Your task to perform on an android device: toggle wifi Image 0: 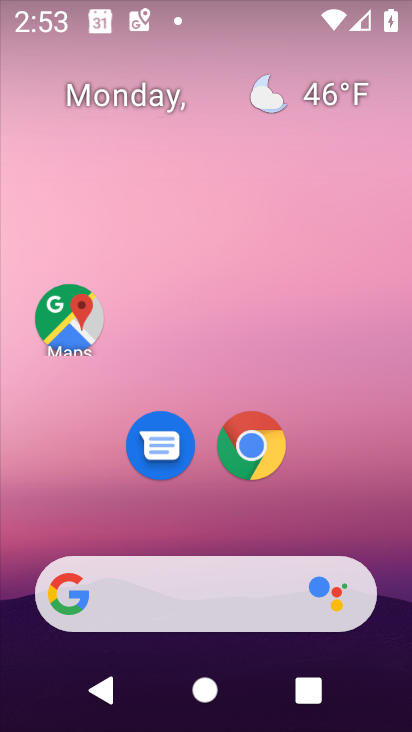
Step 0: drag from (329, 455) to (336, 118)
Your task to perform on an android device: toggle wifi Image 1: 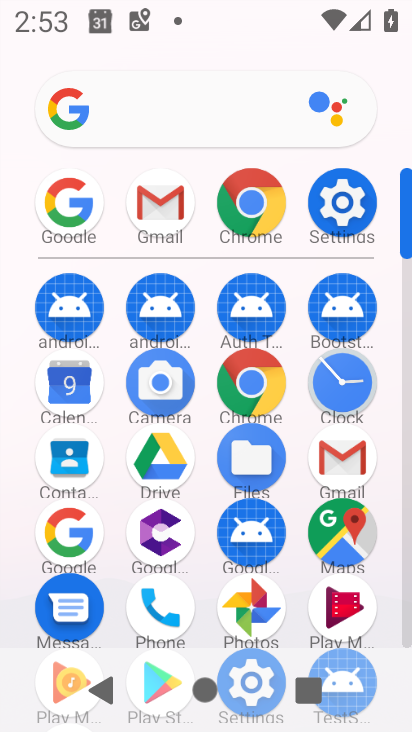
Step 1: click (358, 219)
Your task to perform on an android device: toggle wifi Image 2: 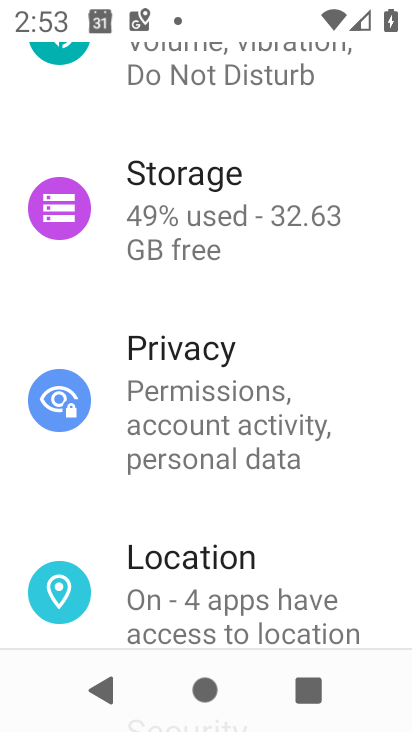
Step 2: drag from (308, 179) to (282, 613)
Your task to perform on an android device: toggle wifi Image 3: 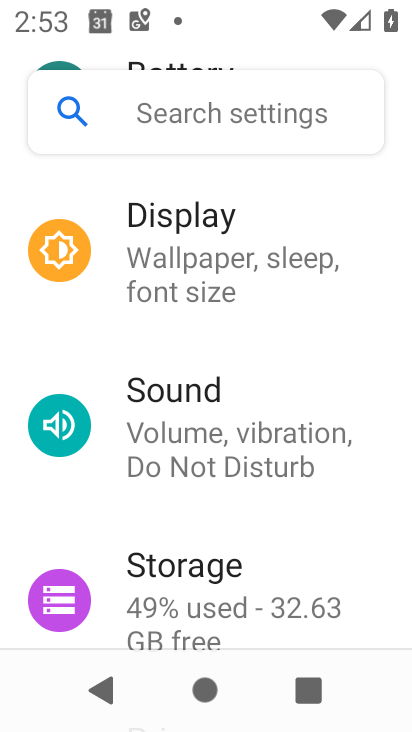
Step 3: drag from (298, 231) to (285, 602)
Your task to perform on an android device: toggle wifi Image 4: 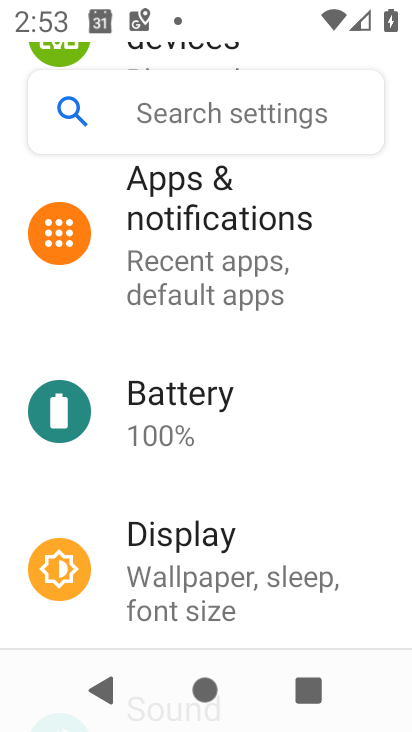
Step 4: drag from (313, 232) to (305, 630)
Your task to perform on an android device: toggle wifi Image 5: 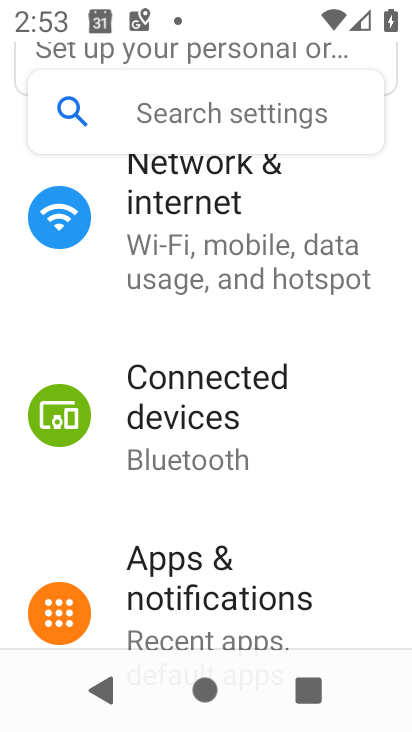
Step 5: drag from (317, 232) to (292, 555)
Your task to perform on an android device: toggle wifi Image 6: 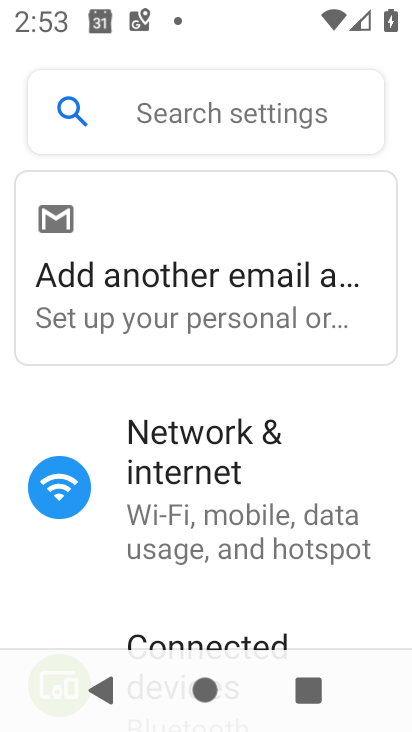
Step 6: click (277, 540)
Your task to perform on an android device: toggle wifi Image 7: 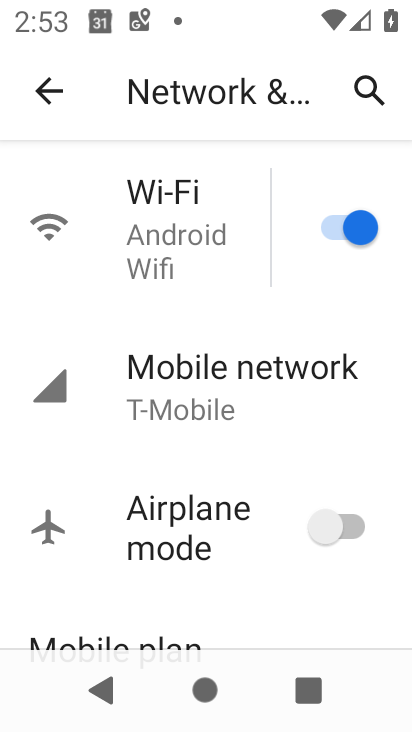
Step 7: click (370, 232)
Your task to perform on an android device: toggle wifi Image 8: 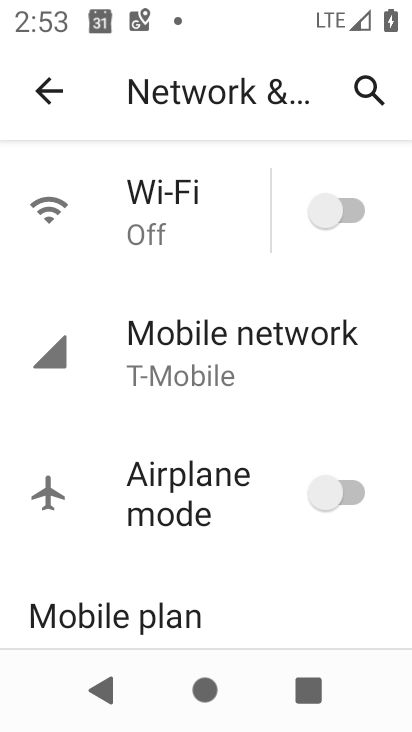
Step 8: task complete